Your task to perform on an android device: manage bookmarks in the chrome app Image 0: 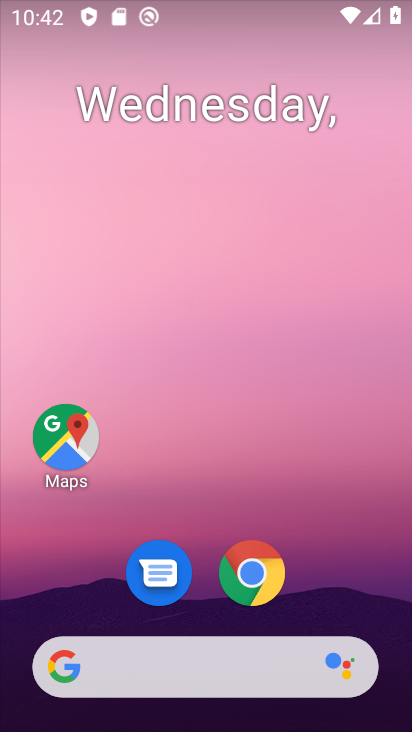
Step 0: click (262, 573)
Your task to perform on an android device: manage bookmarks in the chrome app Image 1: 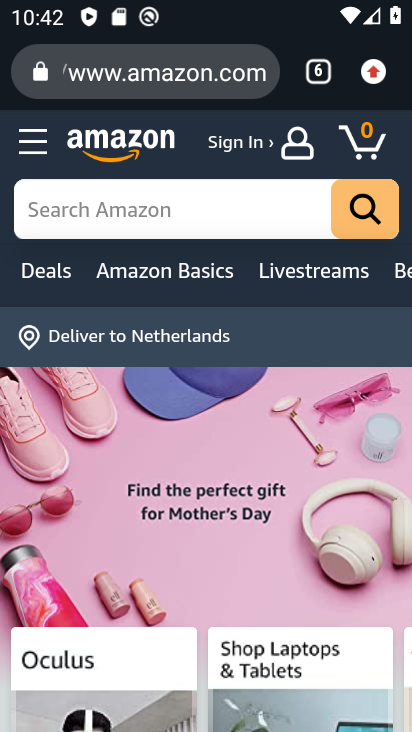
Step 1: click (376, 67)
Your task to perform on an android device: manage bookmarks in the chrome app Image 2: 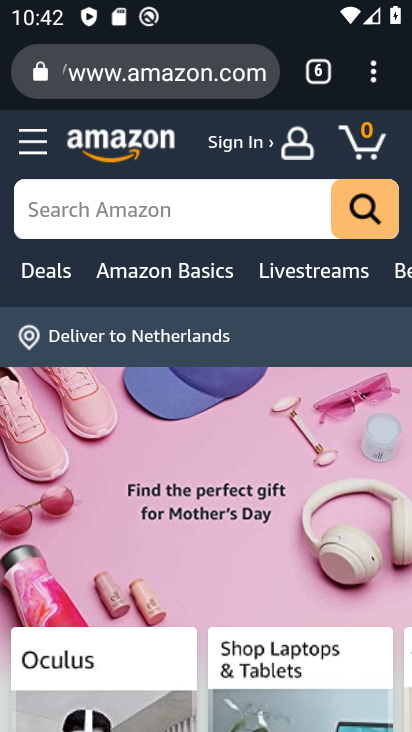
Step 2: click (376, 67)
Your task to perform on an android device: manage bookmarks in the chrome app Image 3: 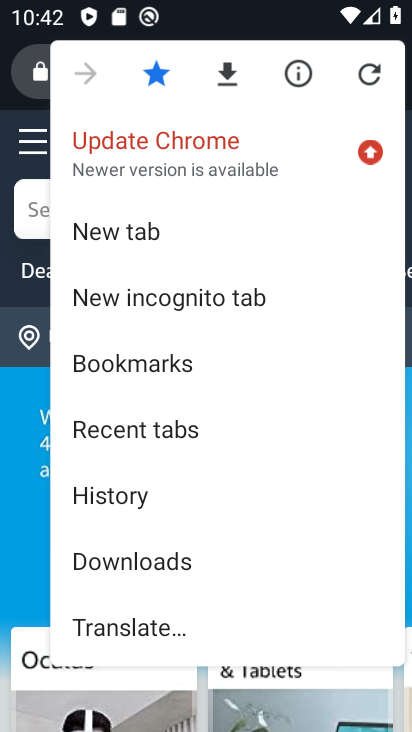
Step 3: click (158, 359)
Your task to perform on an android device: manage bookmarks in the chrome app Image 4: 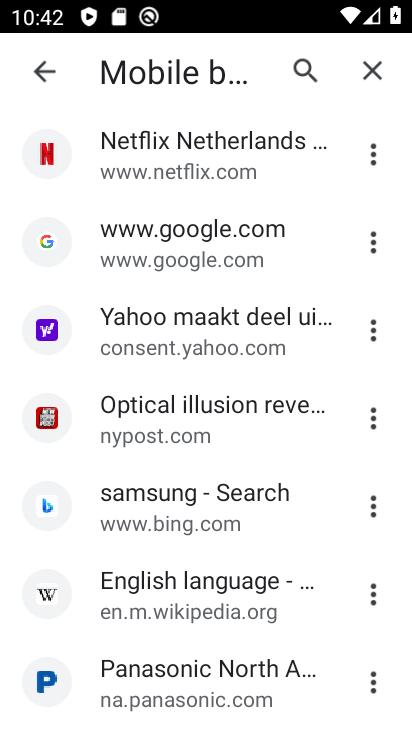
Step 4: click (366, 504)
Your task to perform on an android device: manage bookmarks in the chrome app Image 5: 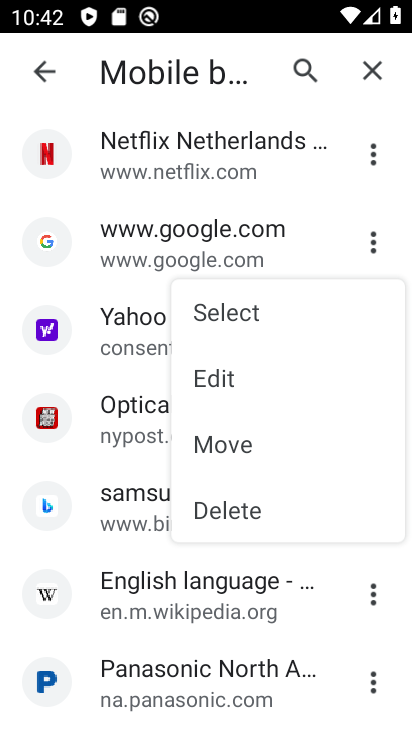
Step 5: click (219, 508)
Your task to perform on an android device: manage bookmarks in the chrome app Image 6: 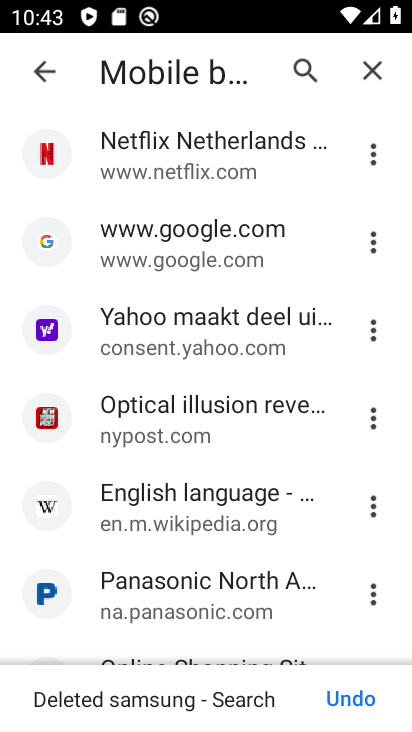
Step 6: task complete